Your task to perform on an android device: Show me the alarms in the clock app Image 0: 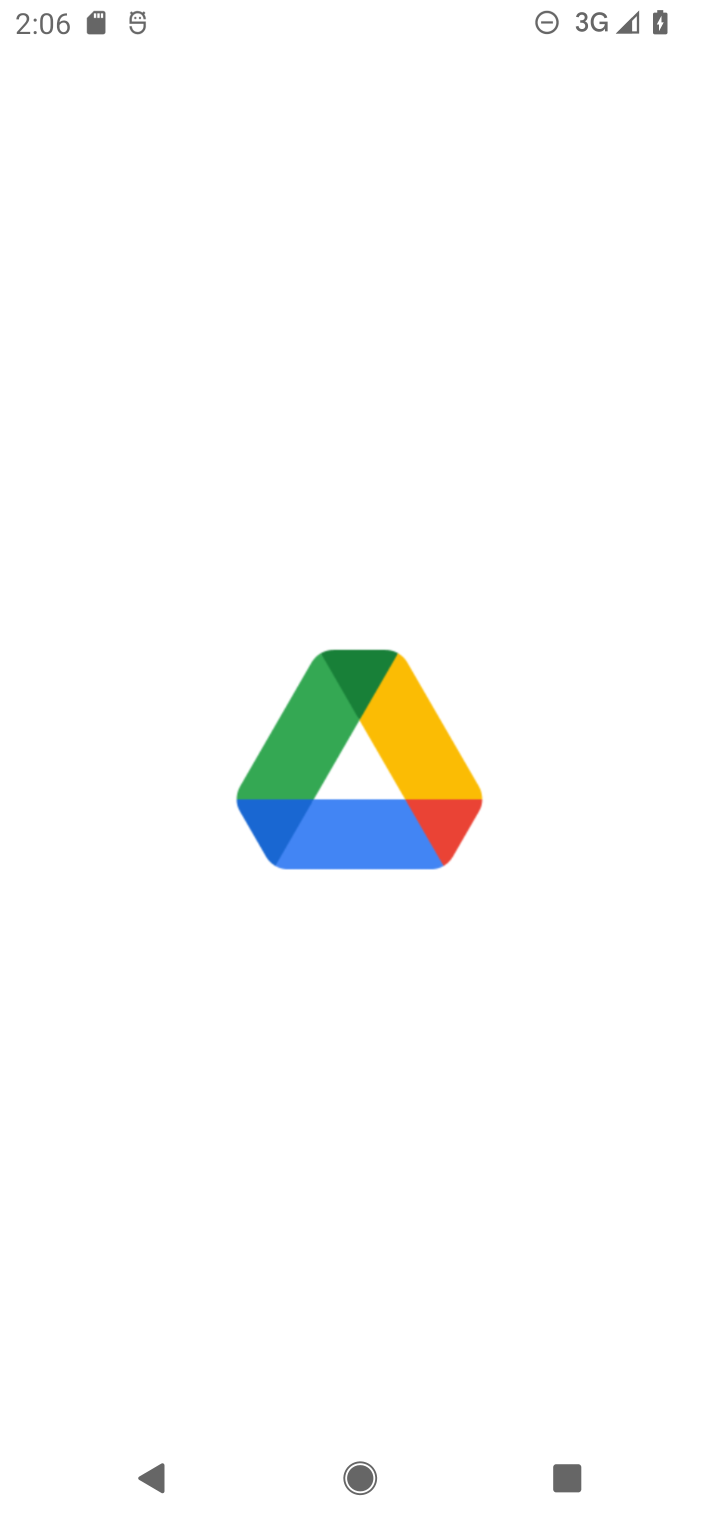
Step 0: press home button
Your task to perform on an android device: Show me the alarms in the clock app Image 1: 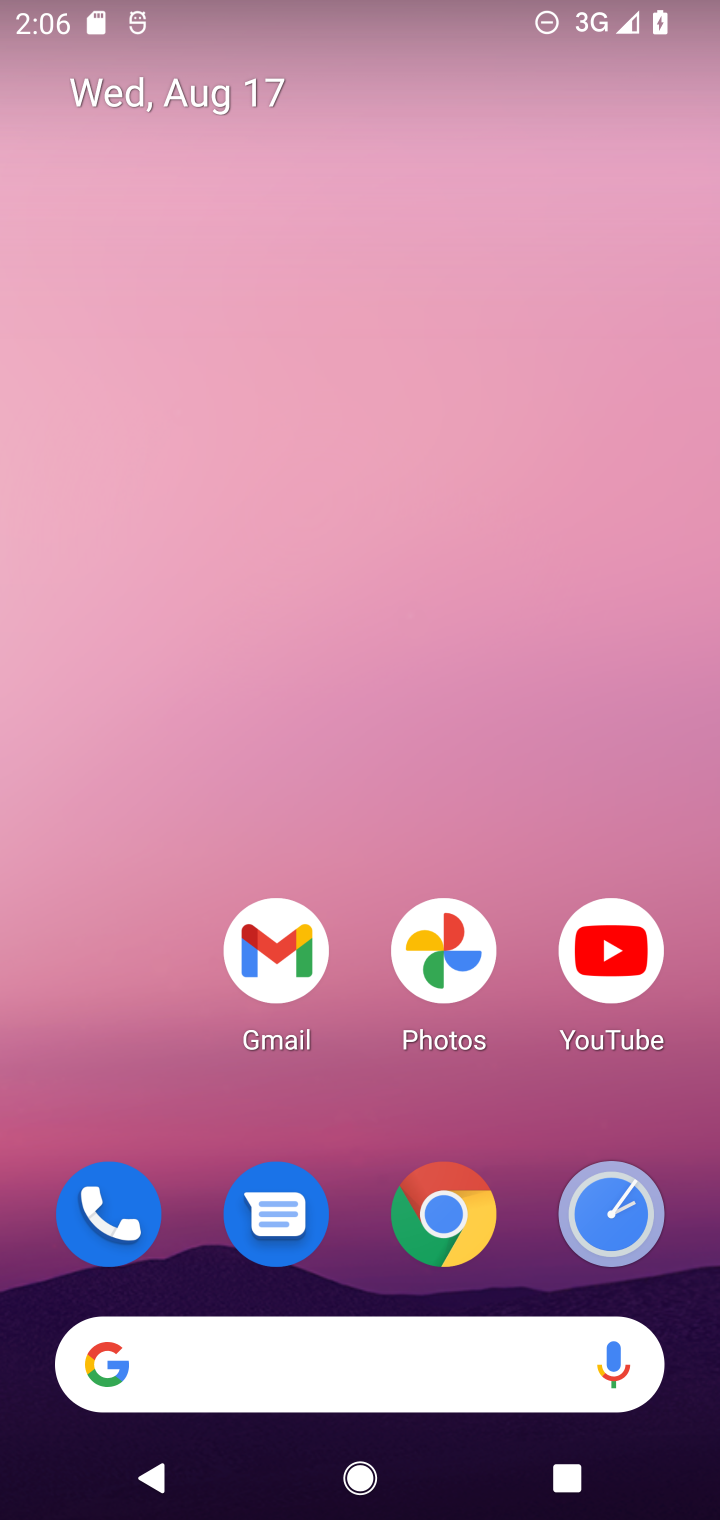
Step 1: click (603, 1217)
Your task to perform on an android device: Show me the alarms in the clock app Image 2: 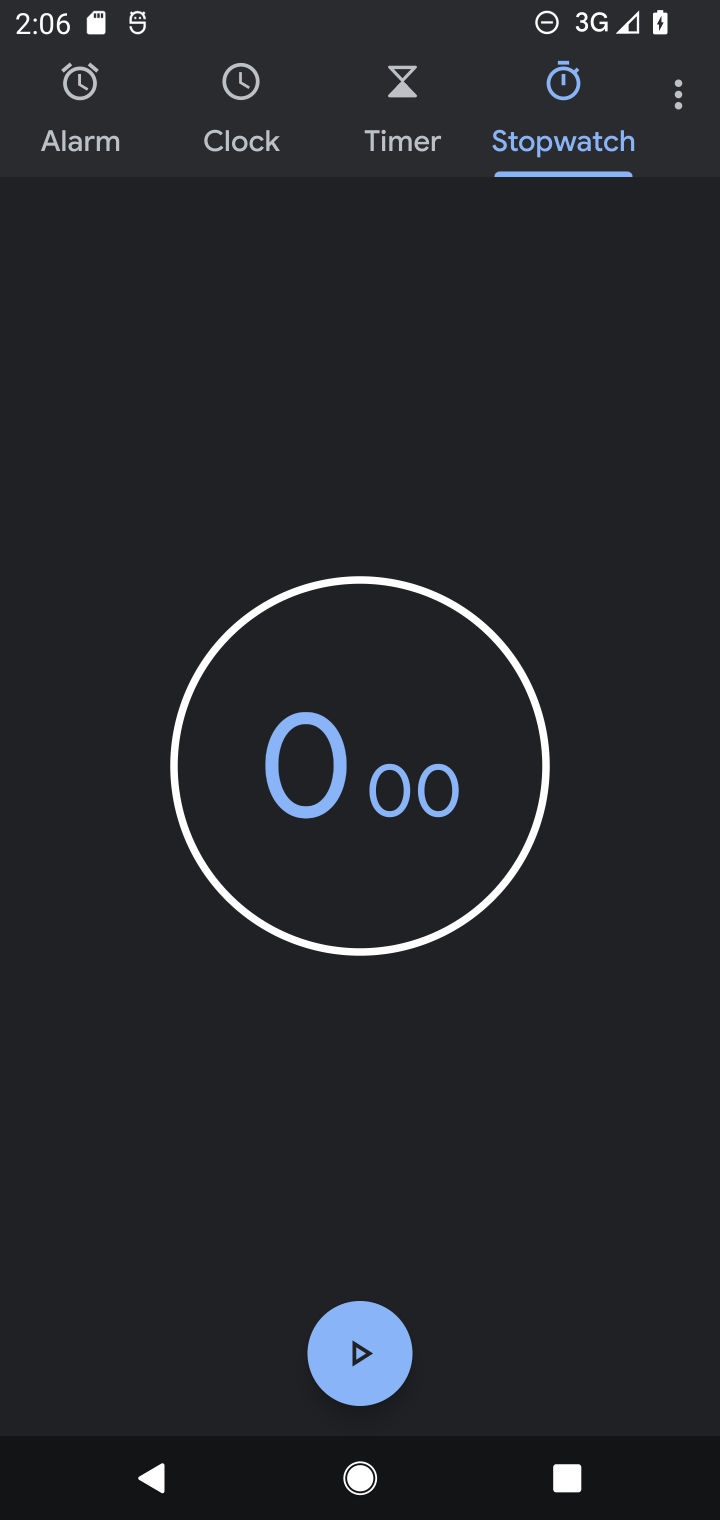
Step 2: click (73, 99)
Your task to perform on an android device: Show me the alarms in the clock app Image 3: 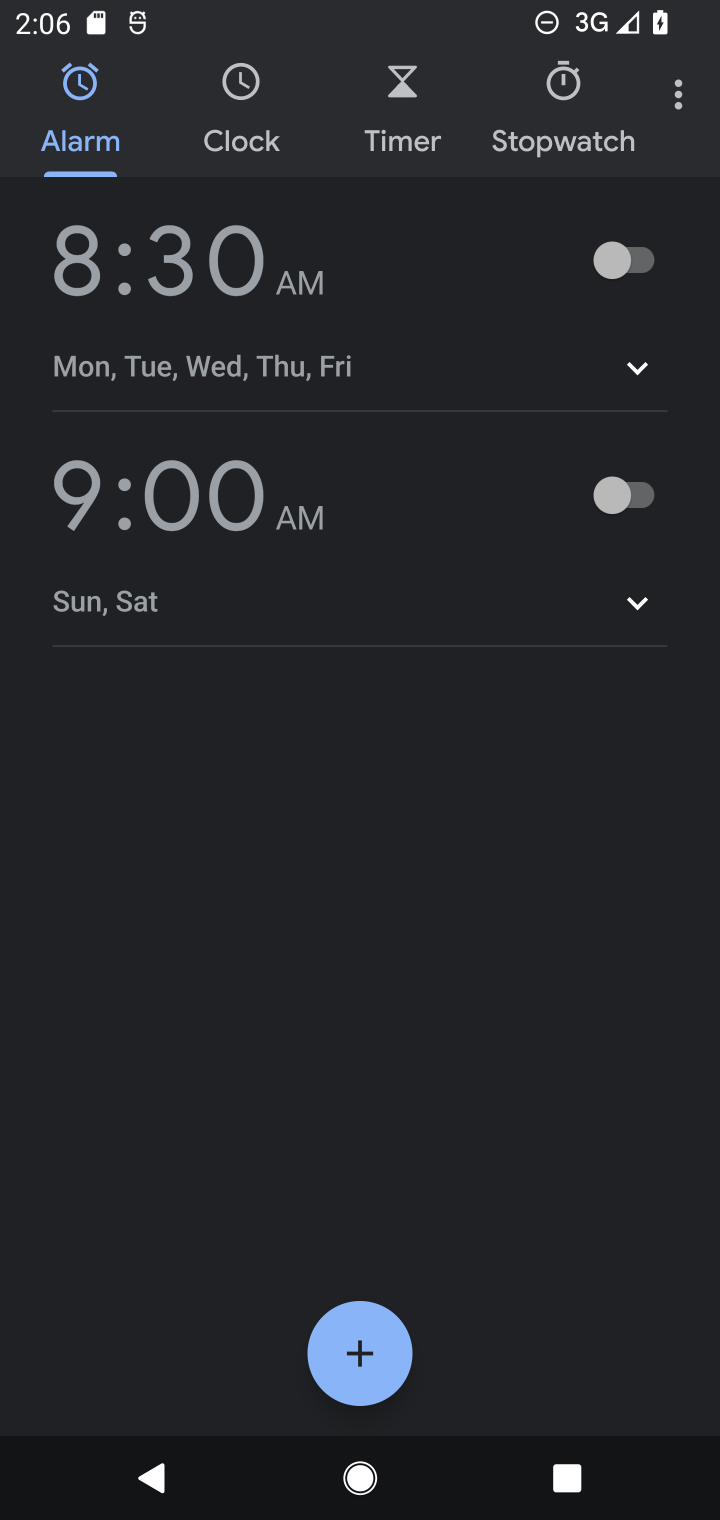
Step 3: task complete